Your task to perform on an android device: check storage Image 0: 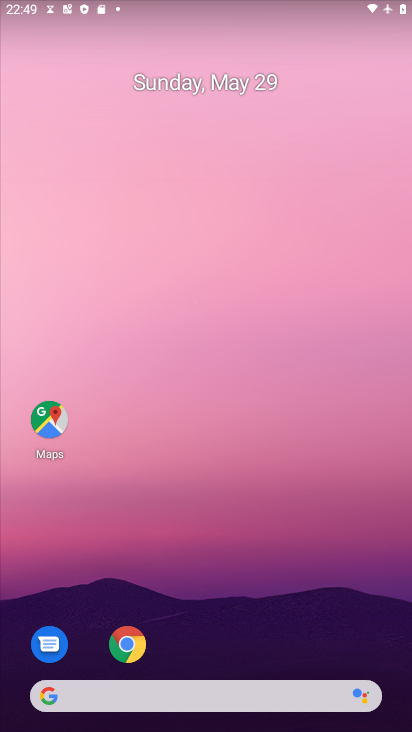
Step 0: drag from (208, 603) to (204, 320)
Your task to perform on an android device: check storage Image 1: 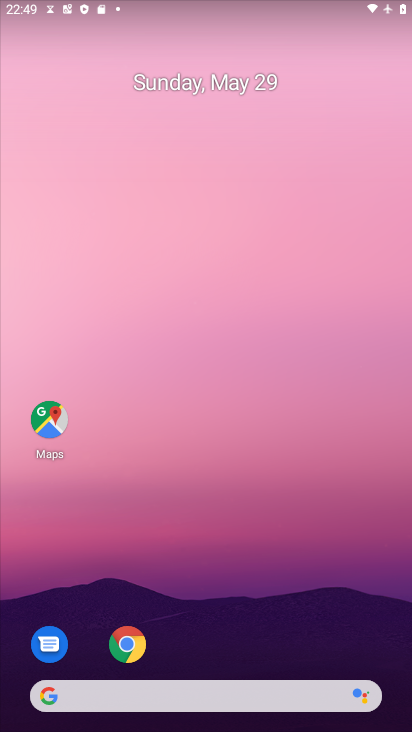
Step 1: drag from (225, 609) to (224, 240)
Your task to perform on an android device: check storage Image 2: 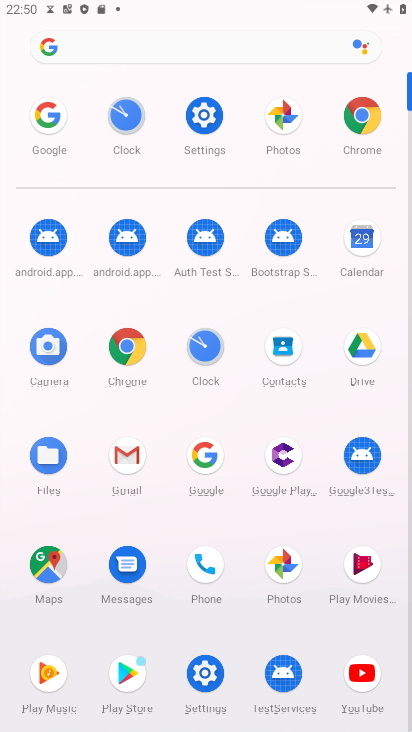
Step 2: click (202, 104)
Your task to perform on an android device: check storage Image 3: 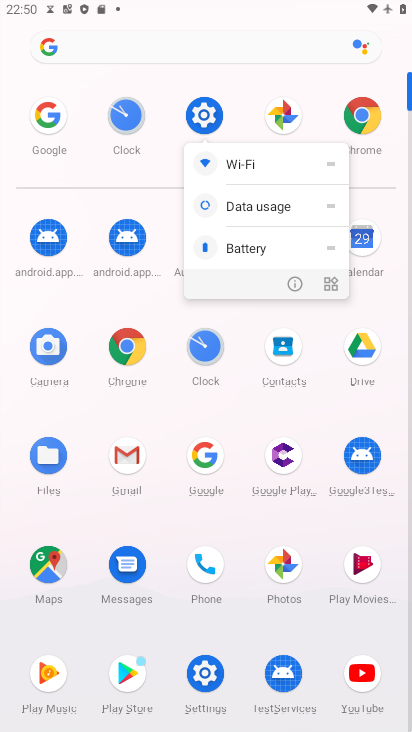
Step 3: click (202, 104)
Your task to perform on an android device: check storage Image 4: 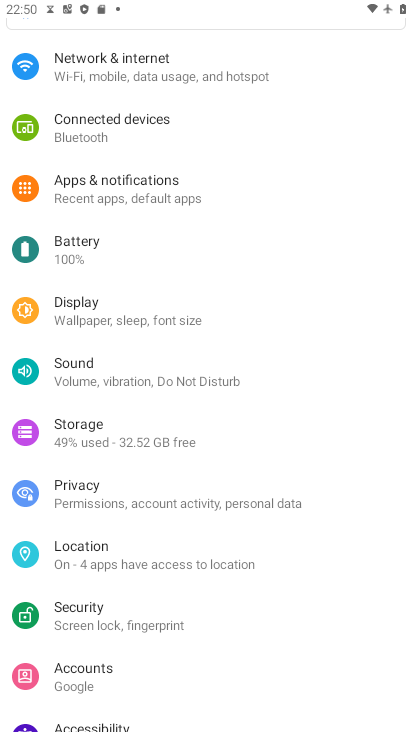
Step 4: click (117, 431)
Your task to perform on an android device: check storage Image 5: 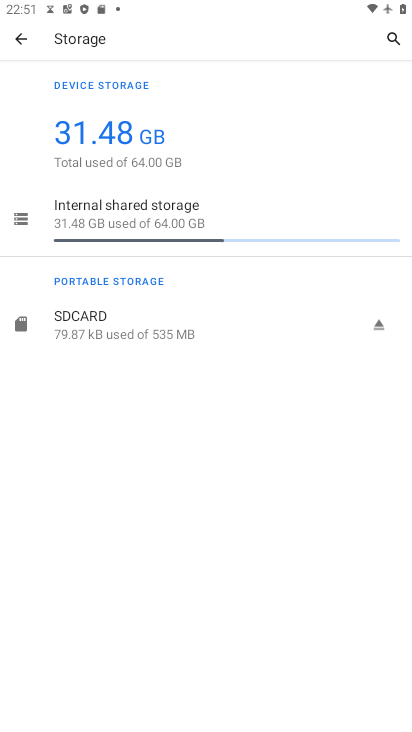
Step 5: task complete